Your task to perform on an android device: Set the phone to "Do not disturb". Image 0: 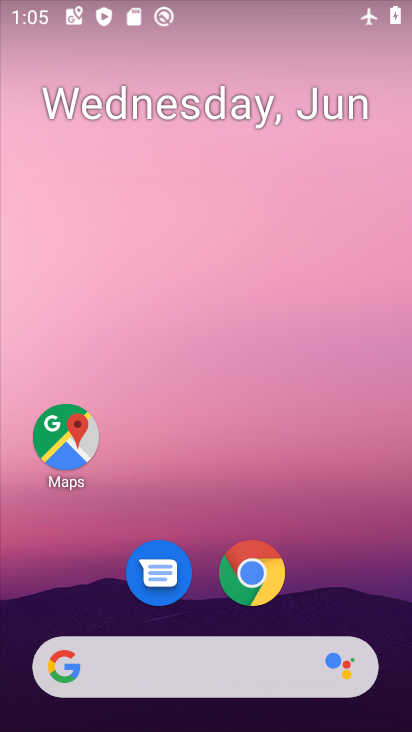
Step 0: press home button
Your task to perform on an android device: Set the phone to "Do not disturb". Image 1: 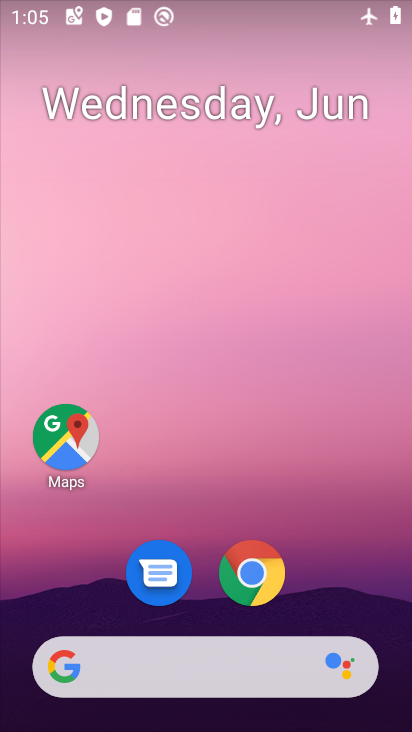
Step 1: drag from (390, 573) to (387, 167)
Your task to perform on an android device: Set the phone to "Do not disturb". Image 2: 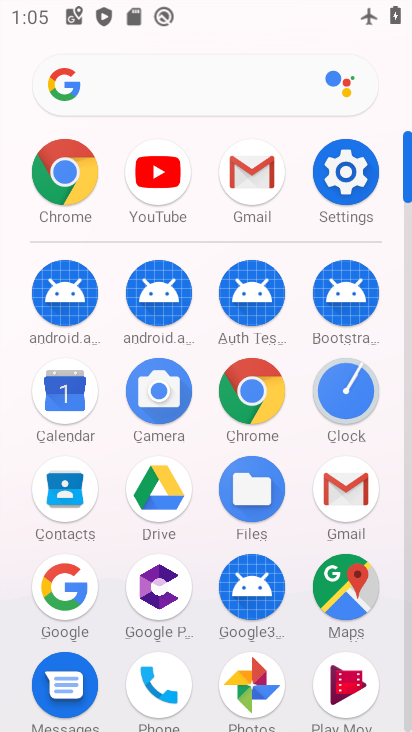
Step 2: click (378, 169)
Your task to perform on an android device: Set the phone to "Do not disturb". Image 3: 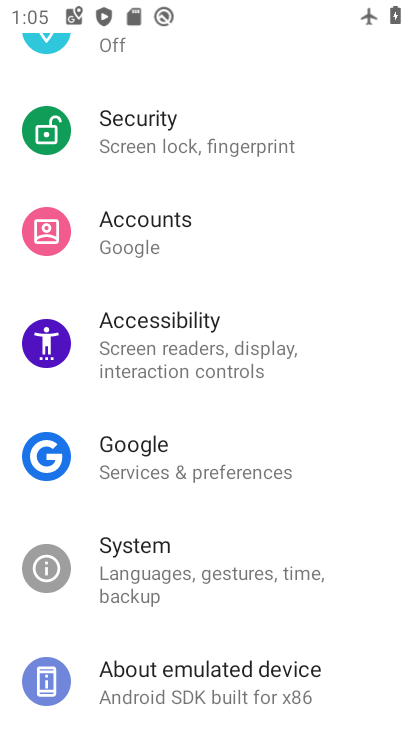
Step 3: drag from (214, 200) to (220, 593)
Your task to perform on an android device: Set the phone to "Do not disturb". Image 4: 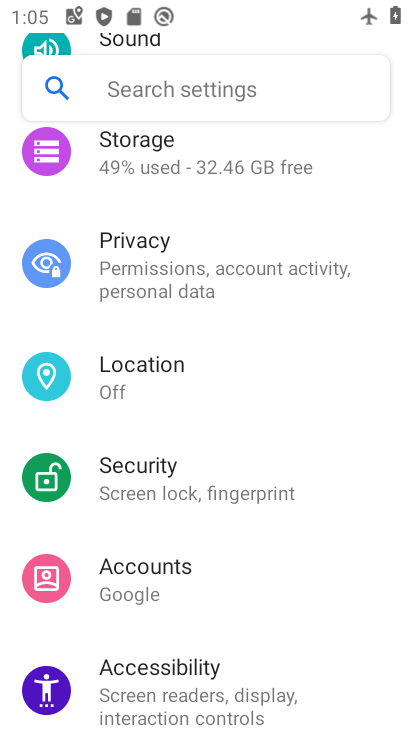
Step 4: drag from (236, 221) to (240, 578)
Your task to perform on an android device: Set the phone to "Do not disturb". Image 5: 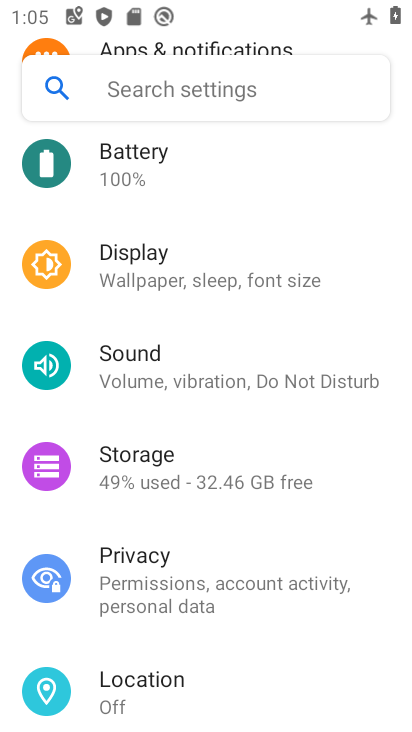
Step 5: click (174, 383)
Your task to perform on an android device: Set the phone to "Do not disturb". Image 6: 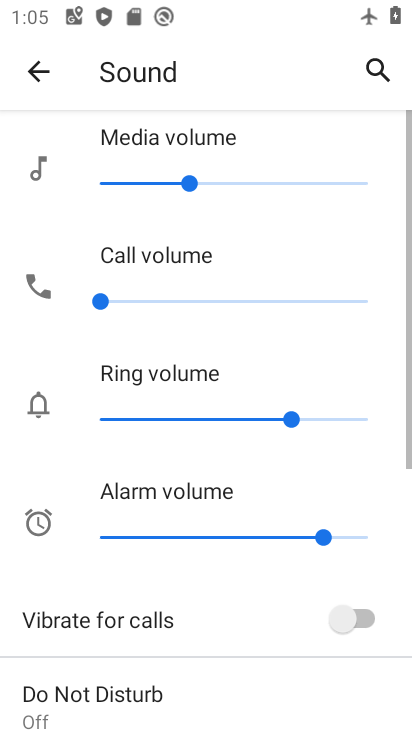
Step 6: drag from (241, 627) to (235, 337)
Your task to perform on an android device: Set the phone to "Do not disturb". Image 7: 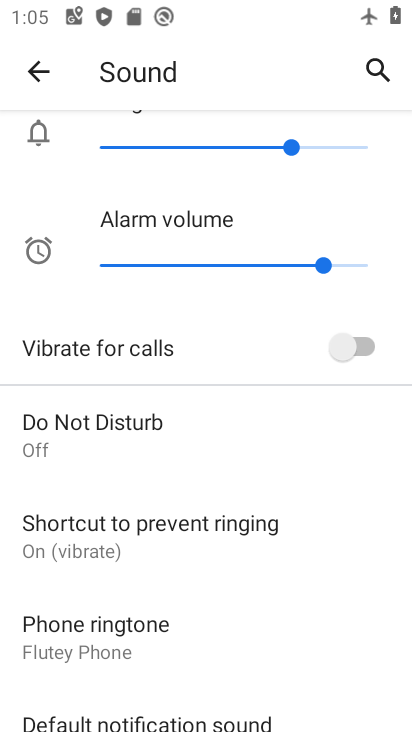
Step 7: click (144, 437)
Your task to perform on an android device: Set the phone to "Do not disturb". Image 8: 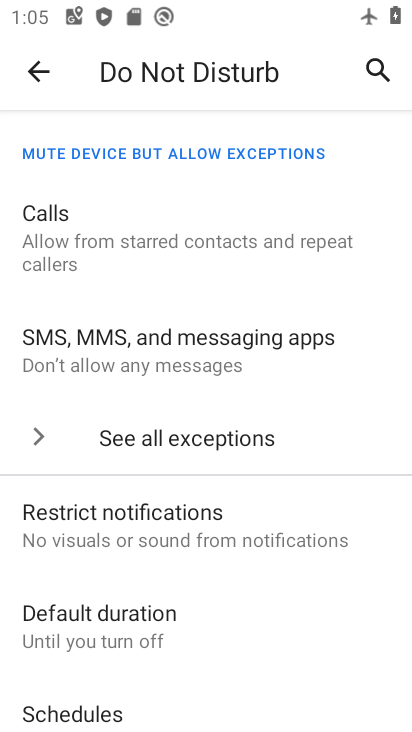
Step 8: task complete